Your task to perform on an android device: Open Google Chrome and click the shortcut for Amazon.com Image 0: 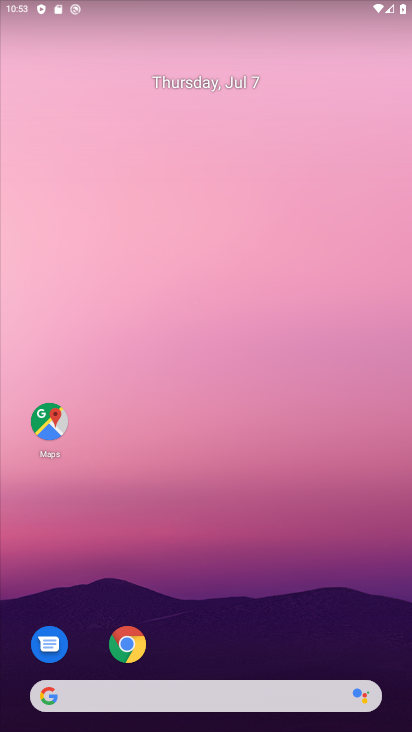
Step 0: drag from (180, 721) to (186, 545)
Your task to perform on an android device: Open Google Chrome and click the shortcut for Amazon.com Image 1: 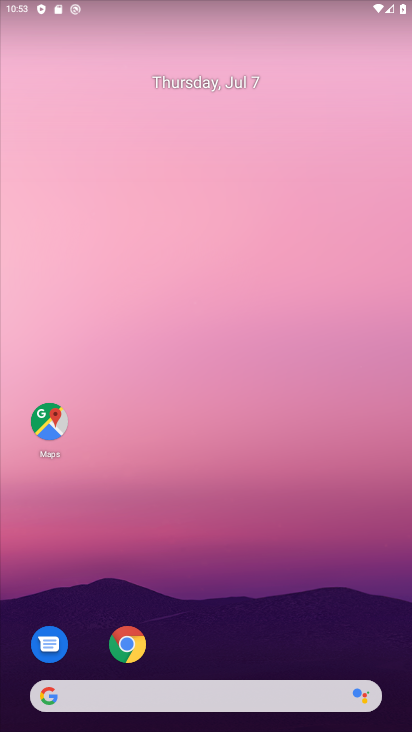
Step 1: drag from (186, 151) to (186, 66)
Your task to perform on an android device: Open Google Chrome and click the shortcut for Amazon.com Image 2: 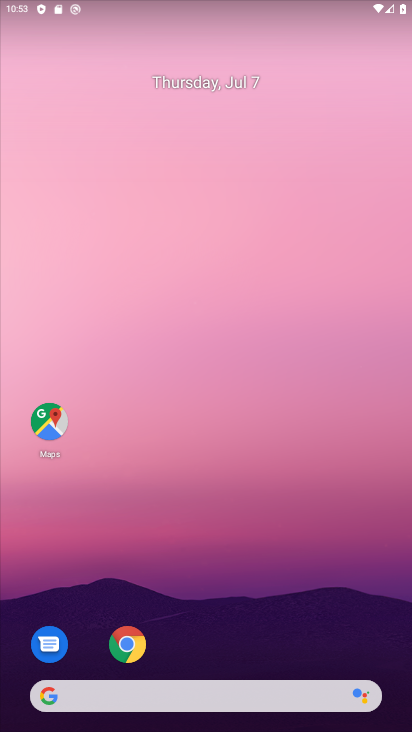
Step 2: click (126, 646)
Your task to perform on an android device: Open Google Chrome and click the shortcut for Amazon.com Image 3: 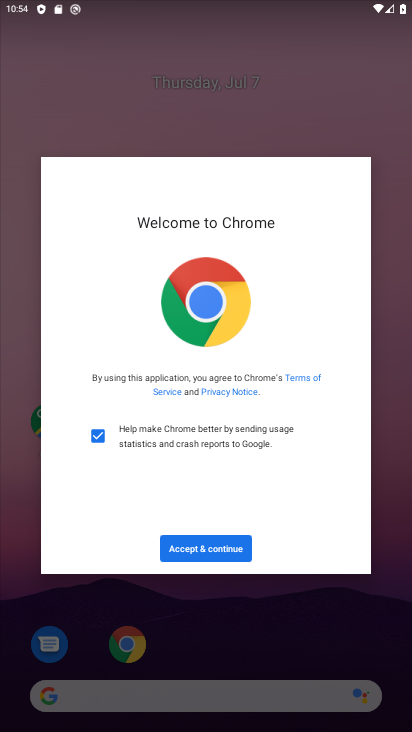
Step 3: click (219, 554)
Your task to perform on an android device: Open Google Chrome and click the shortcut for Amazon.com Image 4: 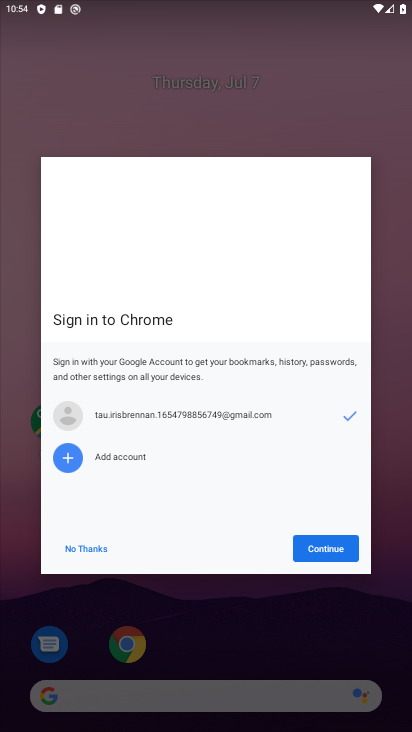
Step 4: click (310, 541)
Your task to perform on an android device: Open Google Chrome and click the shortcut for Amazon.com Image 5: 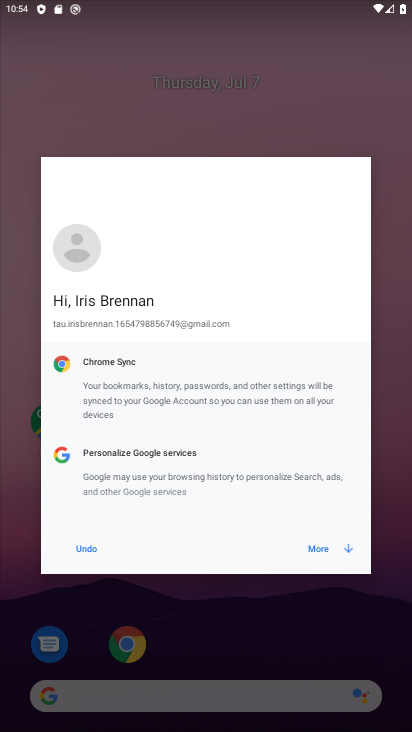
Step 5: click (320, 547)
Your task to perform on an android device: Open Google Chrome and click the shortcut for Amazon.com Image 6: 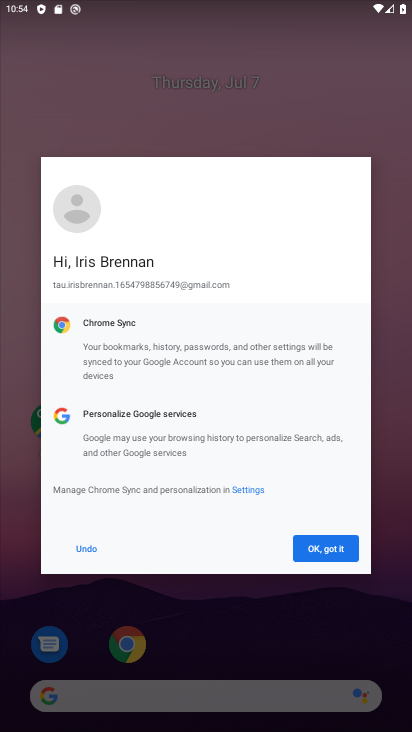
Step 6: click (320, 547)
Your task to perform on an android device: Open Google Chrome and click the shortcut for Amazon.com Image 7: 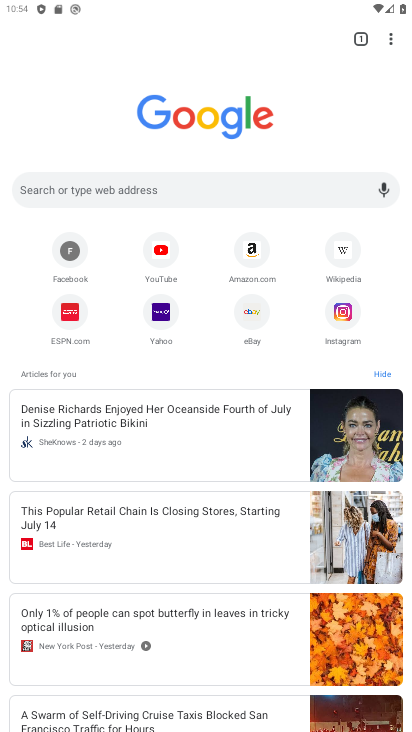
Step 7: click (253, 250)
Your task to perform on an android device: Open Google Chrome and click the shortcut for Amazon.com Image 8: 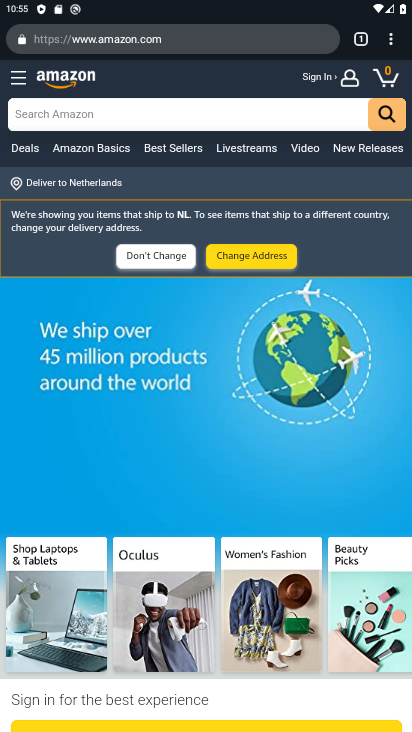
Step 8: task complete